Your task to perform on an android device: When is my next appointment? Image 0: 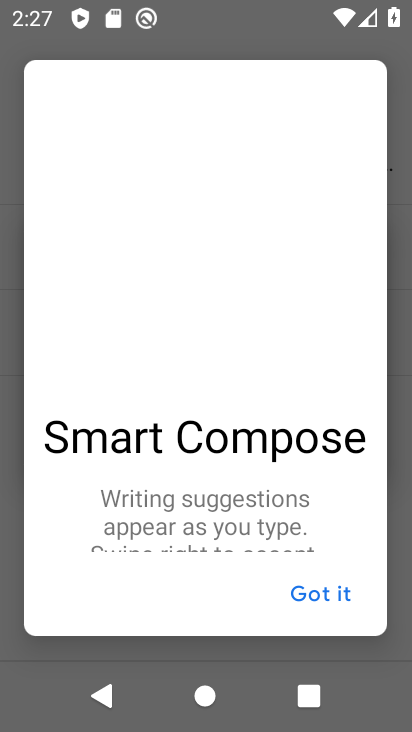
Step 0: press back button
Your task to perform on an android device: When is my next appointment? Image 1: 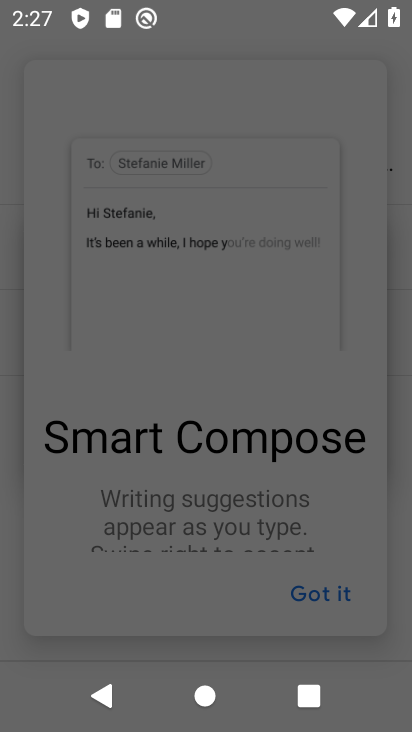
Step 1: press home button
Your task to perform on an android device: When is my next appointment? Image 2: 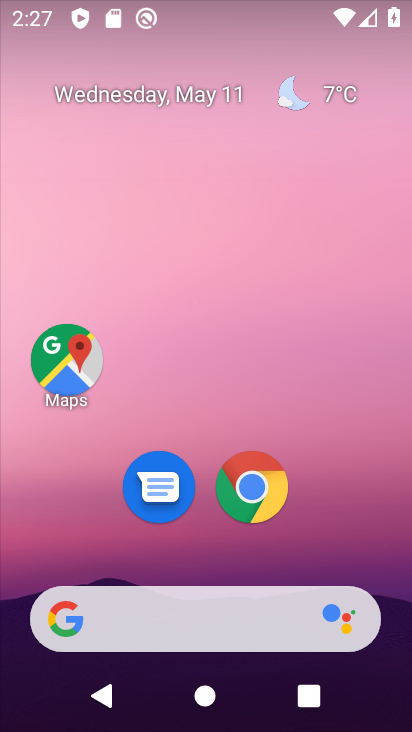
Step 2: drag from (176, 510) to (274, 5)
Your task to perform on an android device: When is my next appointment? Image 3: 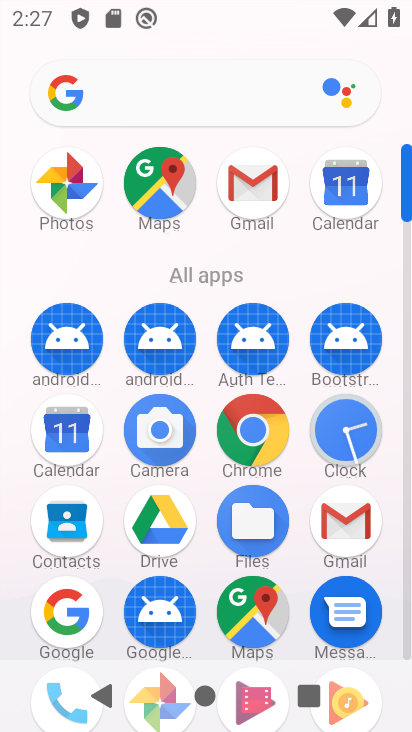
Step 3: click (63, 429)
Your task to perform on an android device: When is my next appointment? Image 4: 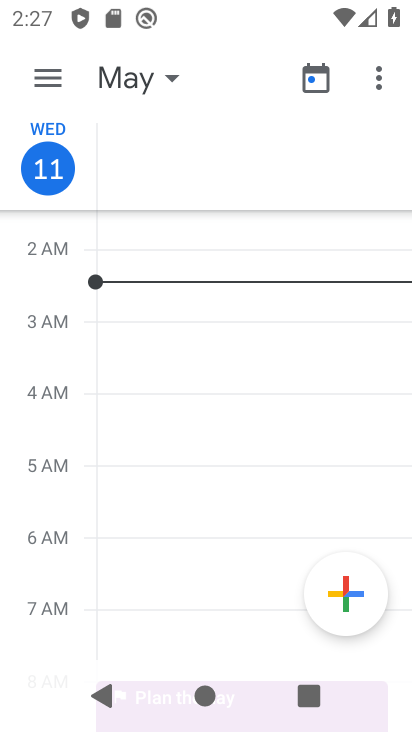
Step 4: click (55, 91)
Your task to perform on an android device: When is my next appointment? Image 5: 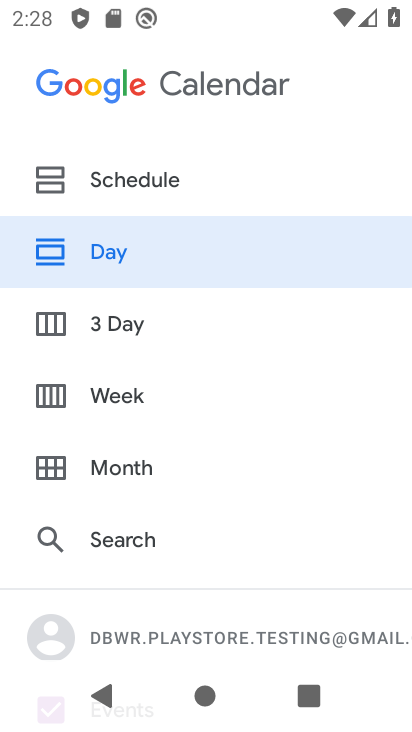
Step 5: click (136, 179)
Your task to perform on an android device: When is my next appointment? Image 6: 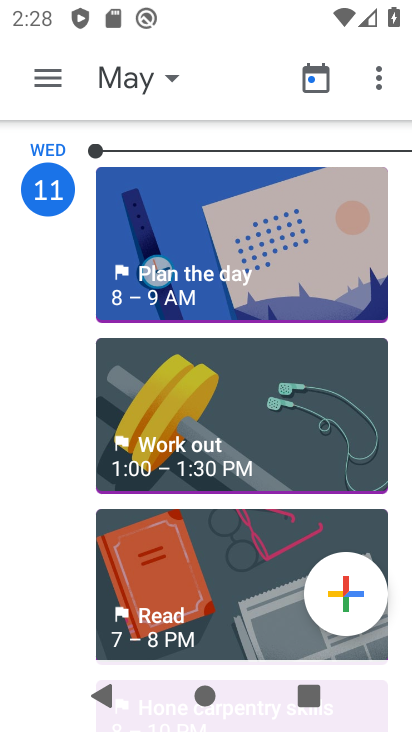
Step 6: drag from (246, 598) to (310, 124)
Your task to perform on an android device: When is my next appointment? Image 7: 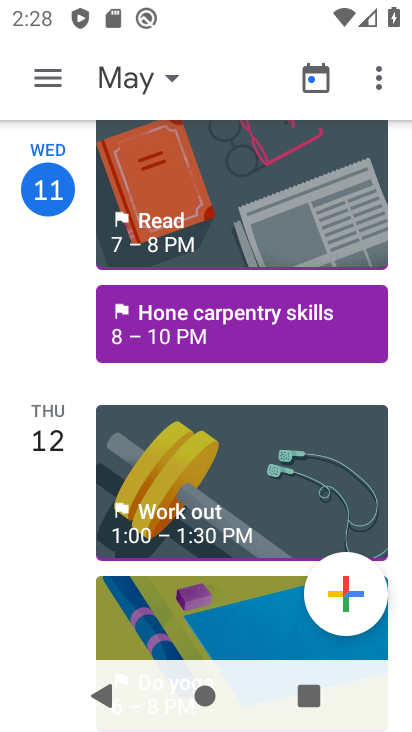
Step 7: drag from (197, 641) to (289, 184)
Your task to perform on an android device: When is my next appointment? Image 8: 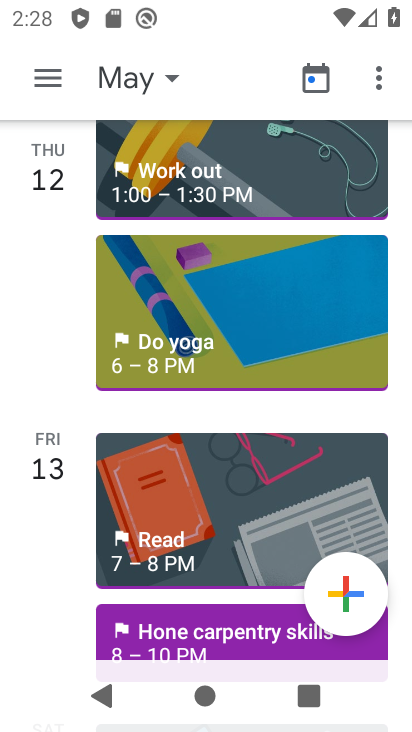
Step 8: drag from (186, 543) to (302, 69)
Your task to perform on an android device: When is my next appointment? Image 9: 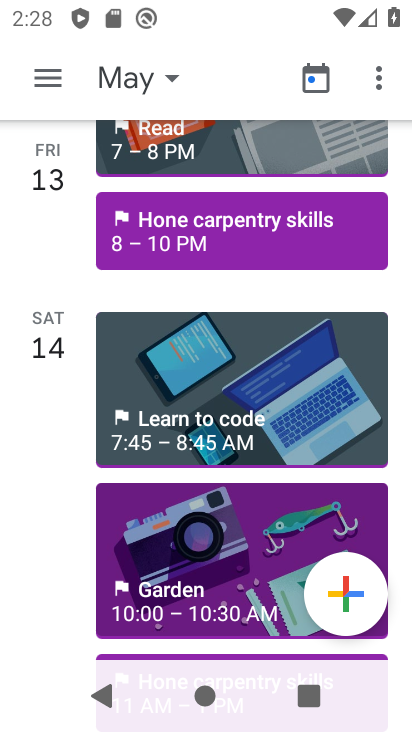
Step 9: drag from (194, 554) to (286, 149)
Your task to perform on an android device: When is my next appointment? Image 10: 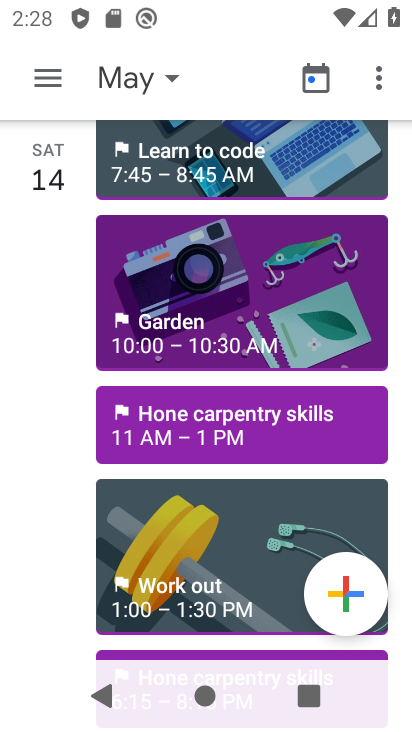
Step 10: drag from (188, 527) to (273, 169)
Your task to perform on an android device: When is my next appointment? Image 11: 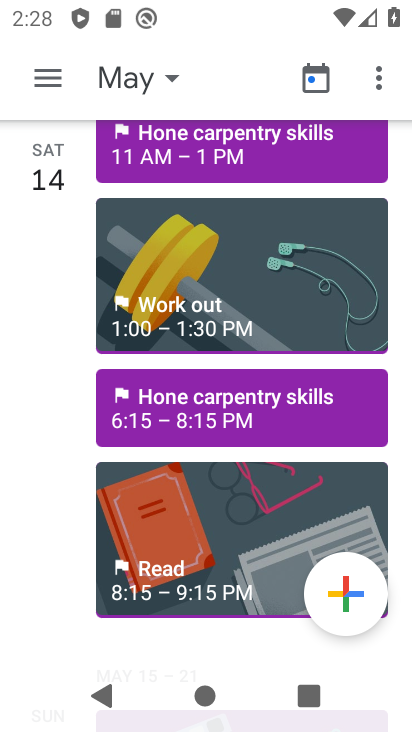
Step 11: click (181, 550)
Your task to perform on an android device: When is my next appointment? Image 12: 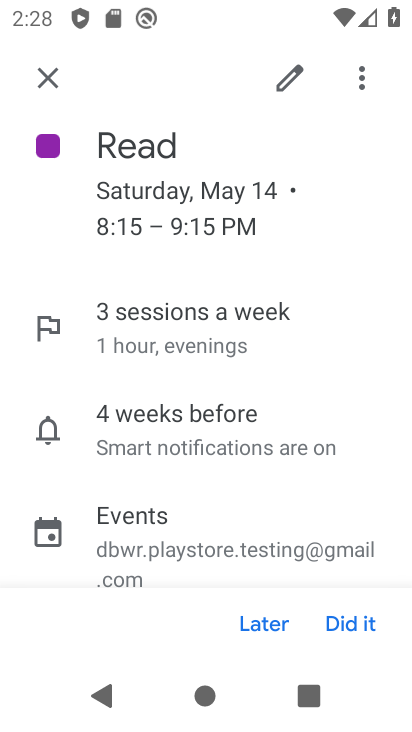
Step 12: task complete